Your task to perform on an android device: star an email in the gmail app Image 0: 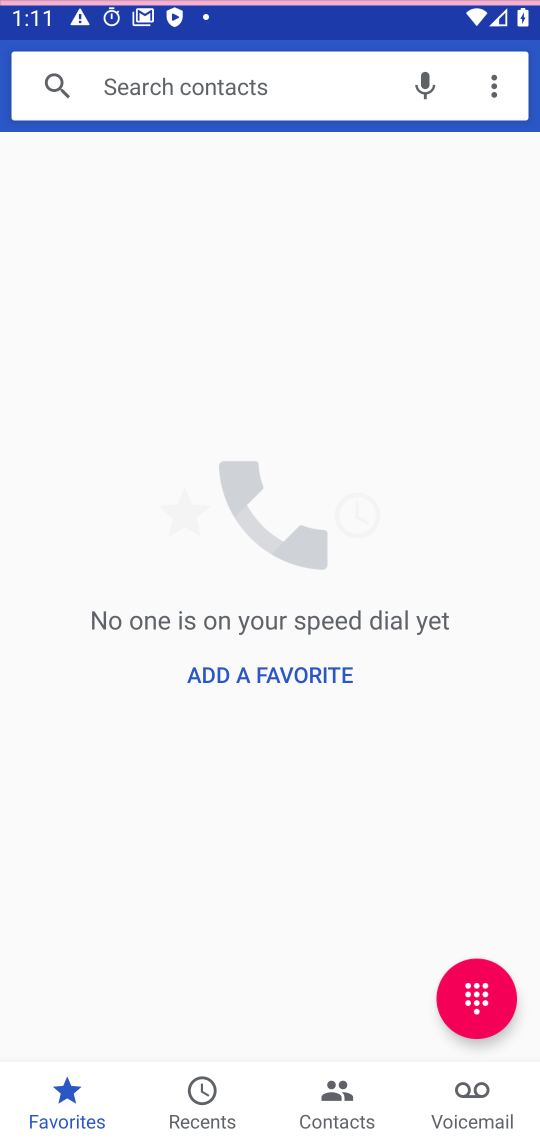
Step 0: press home button
Your task to perform on an android device: star an email in the gmail app Image 1: 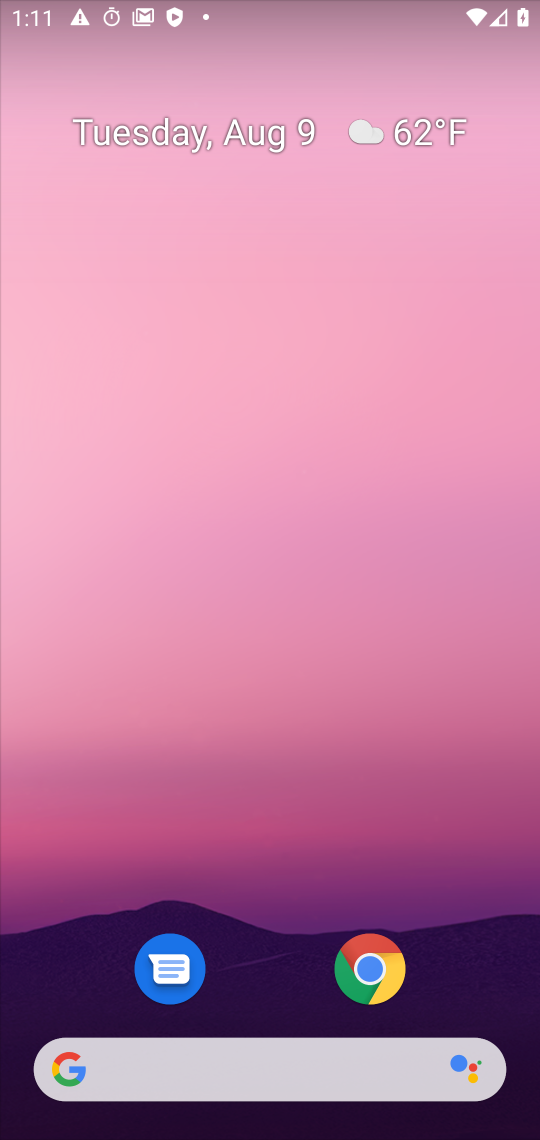
Step 1: drag from (352, 1038) to (257, 344)
Your task to perform on an android device: star an email in the gmail app Image 2: 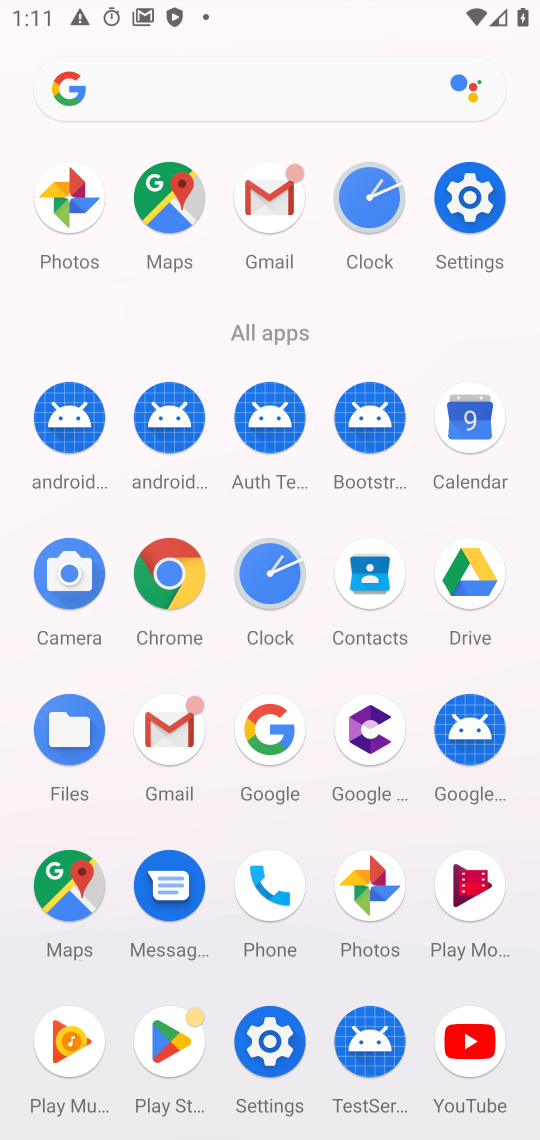
Step 2: click (178, 722)
Your task to perform on an android device: star an email in the gmail app Image 3: 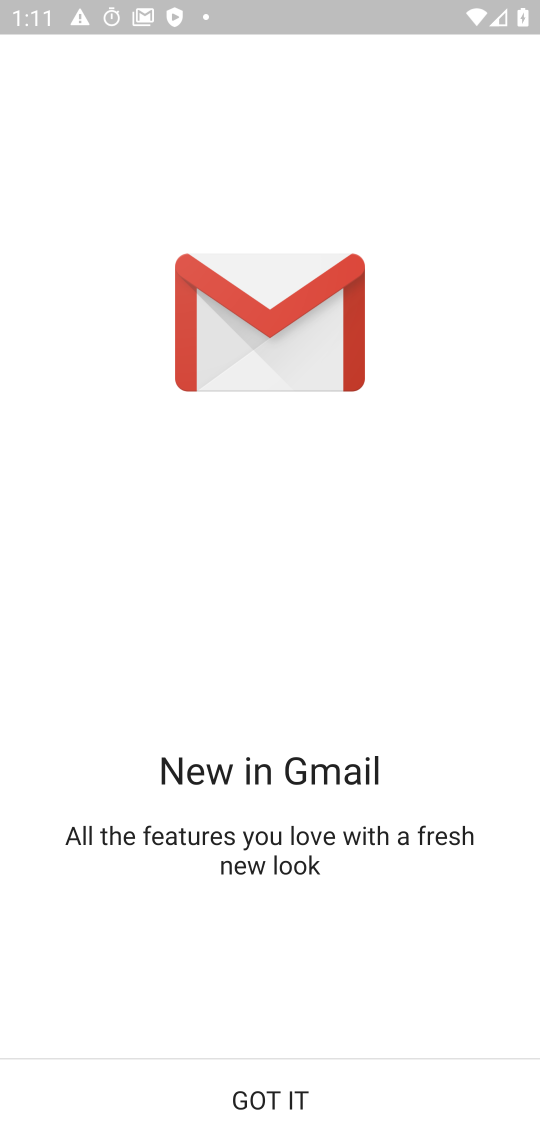
Step 3: click (298, 1091)
Your task to perform on an android device: star an email in the gmail app Image 4: 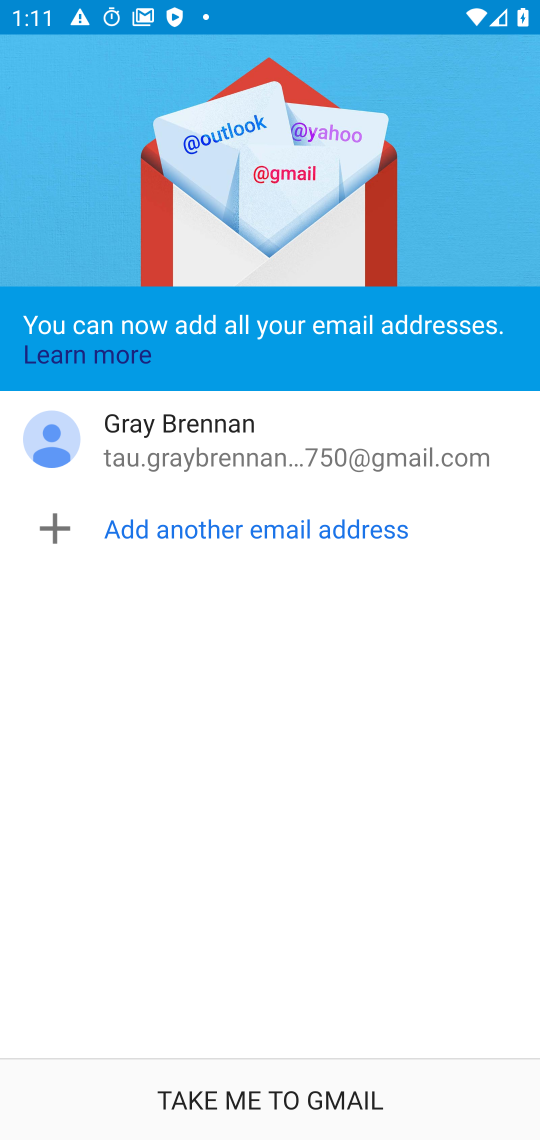
Step 4: click (268, 1095)
Your task to perform on an android device: star an email in the gmail app Image 5: 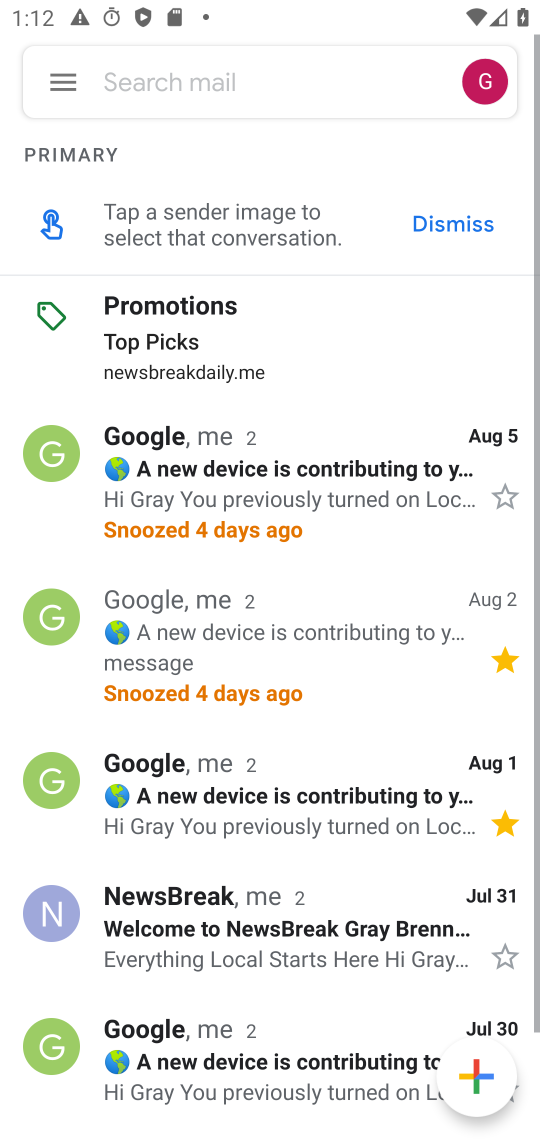
Step 5: click (419, 225)
Your task to perform on an android device: star an email in the gmail app Image 6: 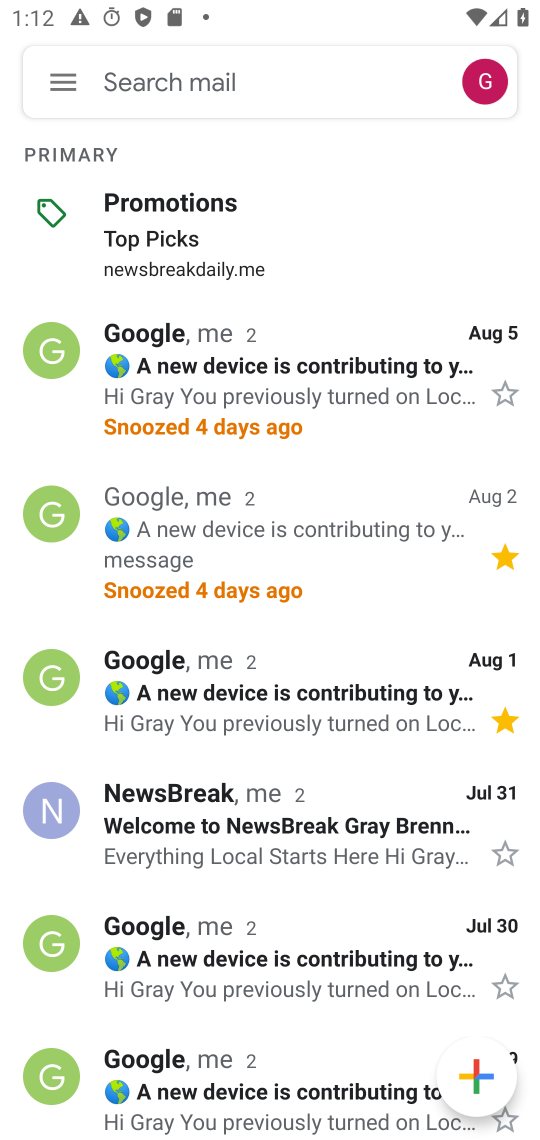
Step 6: click (429, 400)
Your task to perform on an android device: star an email in the gmail app Image 7: 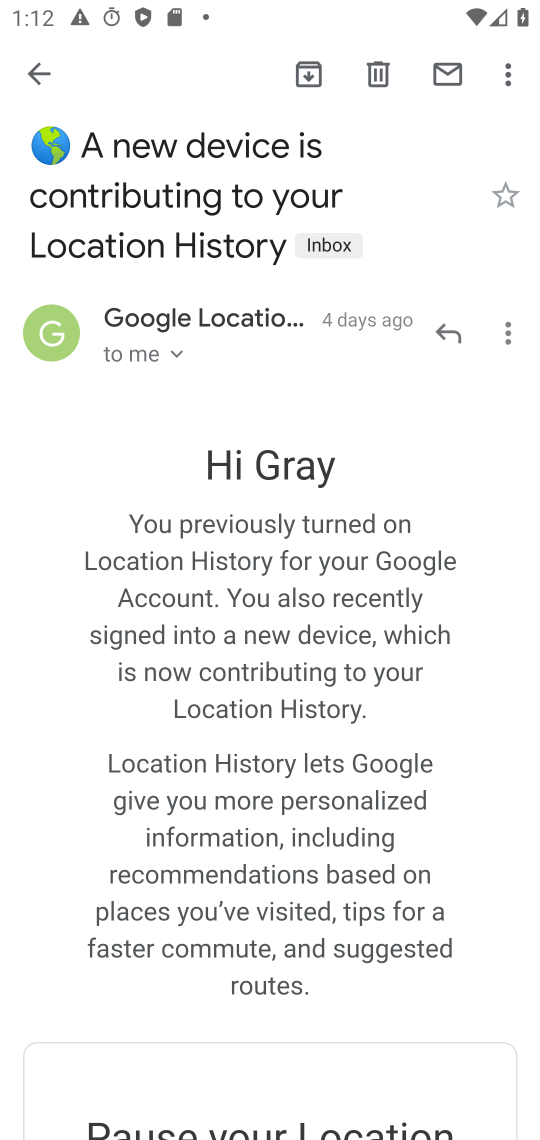
Step 7: click (510, 201)
Your task to perform on an android device: star an email in the gmail app Image 8: 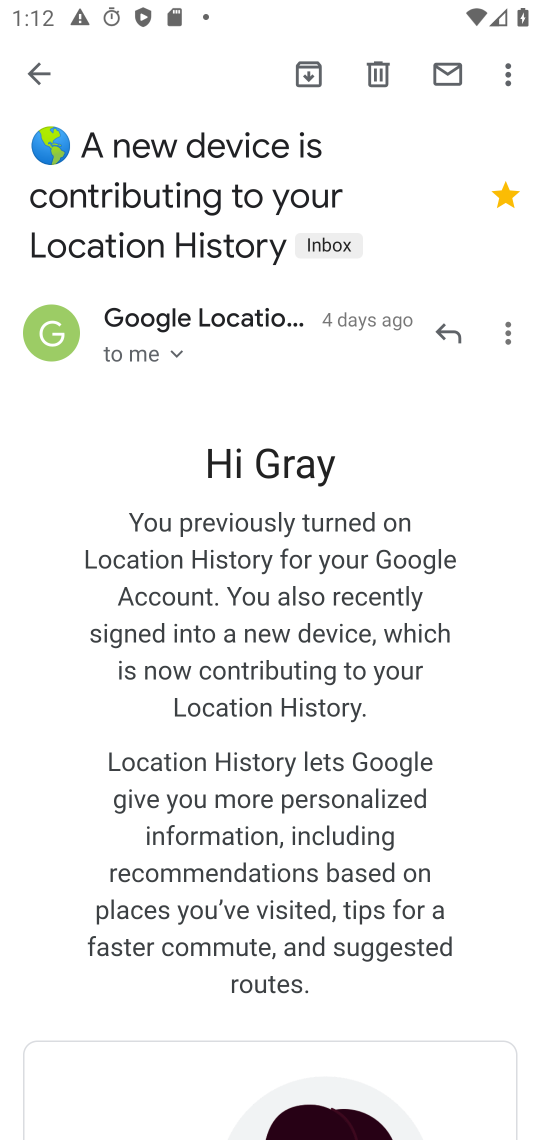
Step 8: click (275, 575)
Your task to perform on an android device: star an email in the gmail app Image 9: 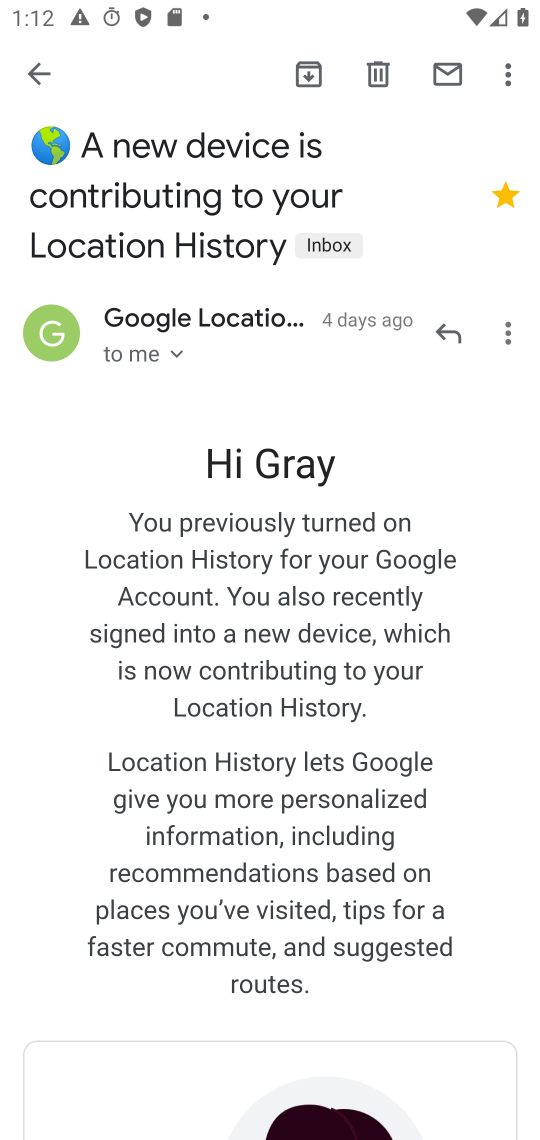
Step 9: task complete